Your task to perform on an android device: Open Youtube and go to "Your channel" Image 0: 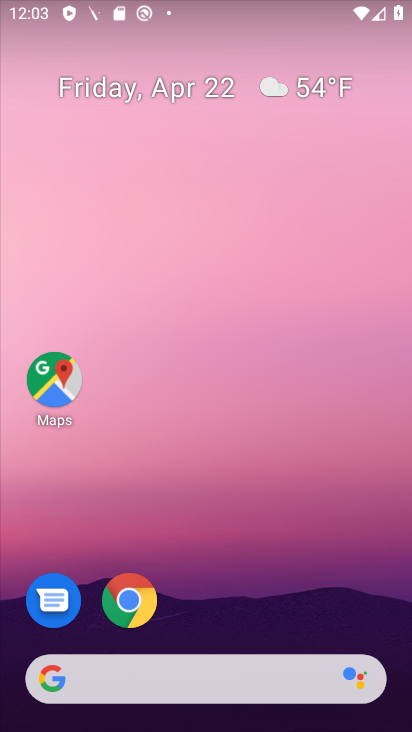
Step 0: drag from (359, 257) to (352, 215)
Your task to perform on an android device: Open Youtube and go to "Your channel" Image 1: 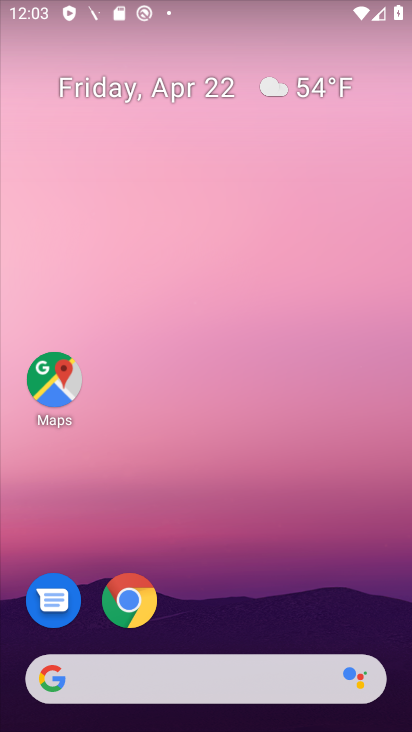
Step 1: drag from (376, 277) to (360, 194)
Your task to perform on an android device: Open Youtube and go to "Your channel" Image 2: 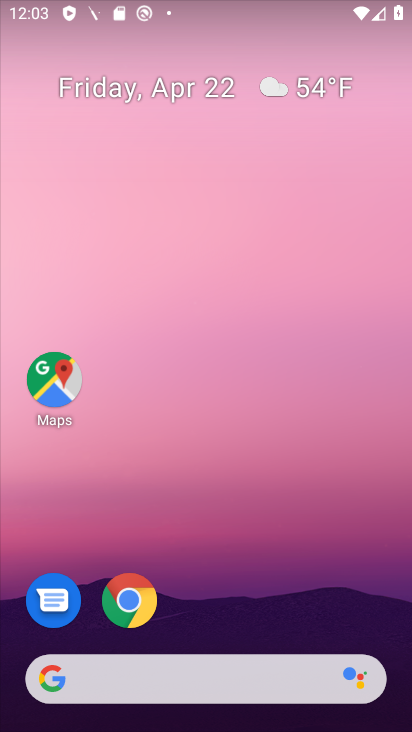
Step 2: drag from (398, 635) to (368, 249)
Your task to perform on an android device: Open Youtube and go to "Your channel" Image 3: 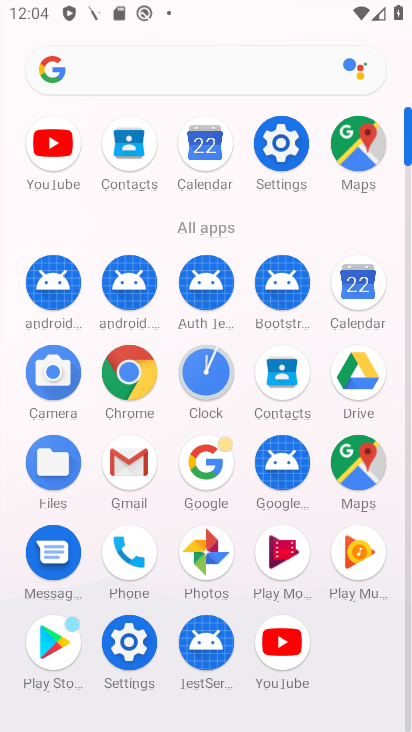
Step 3: click (285, 649)
Your task to perform on an android device: Open Youtube and go to "Your channel" Image 4: 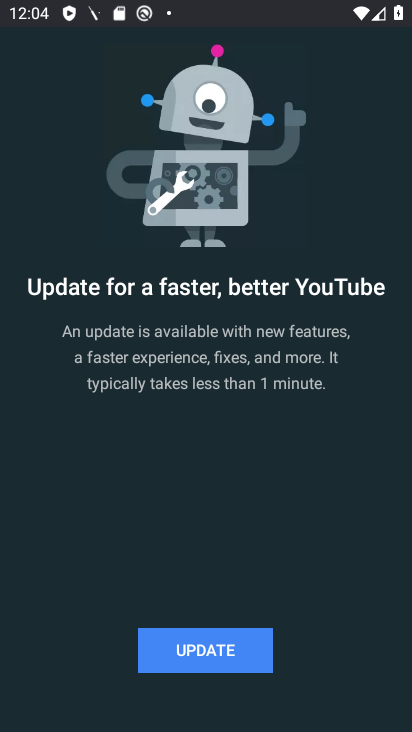
Step 4: click (245, 649)
Your task to perform on an android device: Open Youtube and go to "Your channel" Image 5: 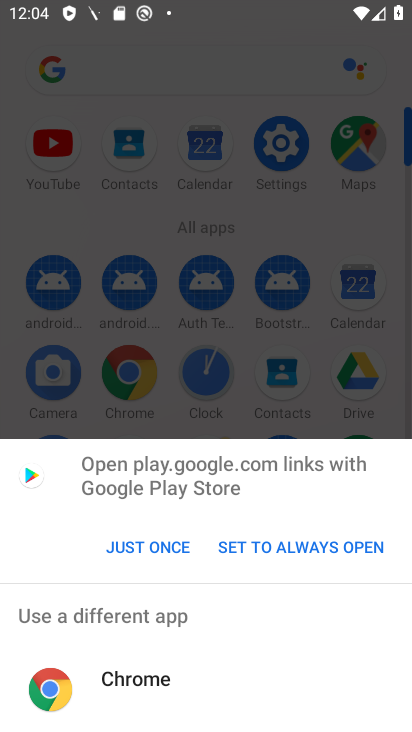
Step 5: click (142, 546)
Your task to perform on an android device: Open Youtube and go to "Your channel" Image 6: 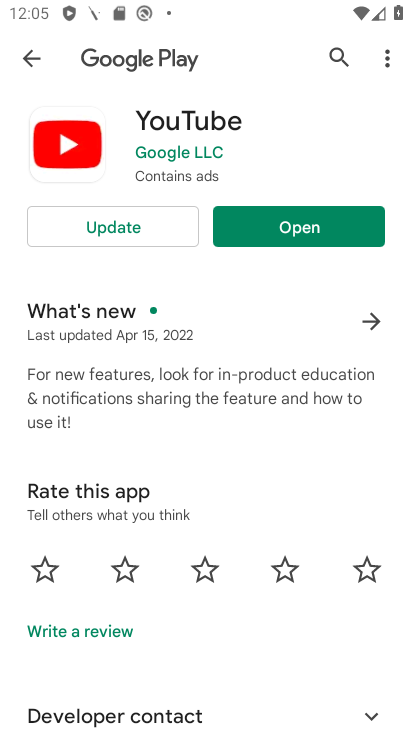
Step 6: click (140, 232)
Your task to perform on an android device: Open Youtube and go to "Your channel" Image 7: 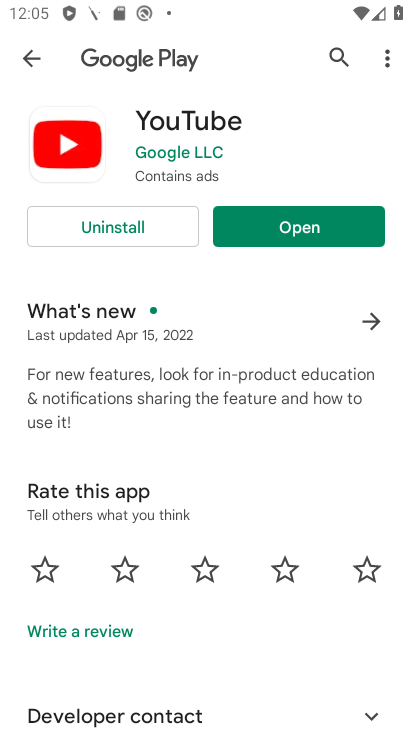
Step 7: click (296, 221)
Your task to perform on an android device: Open Youtube and go to "Your channel" Image 8: 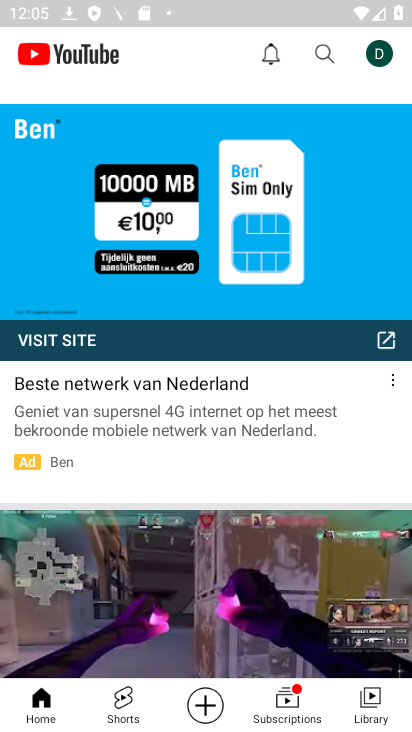
Step 8: click (372, 51)
Your task to perform on an android device: Open Youtube and go to "Your channel" Image 9: 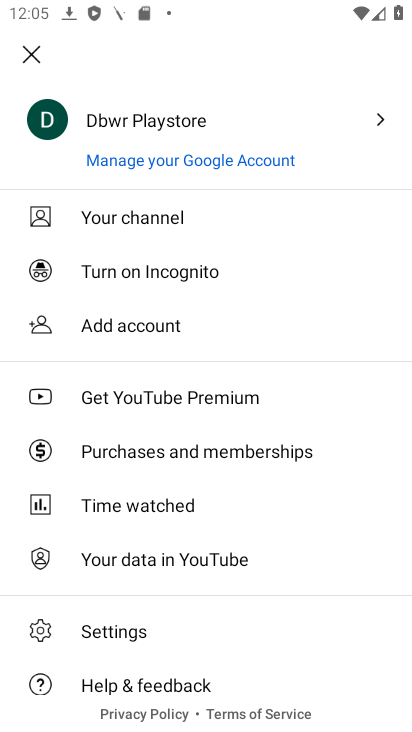
Step 9: click (103, 218)
Your task to perform on an android device: Open Youtube and go to "Your channel" Image 10: 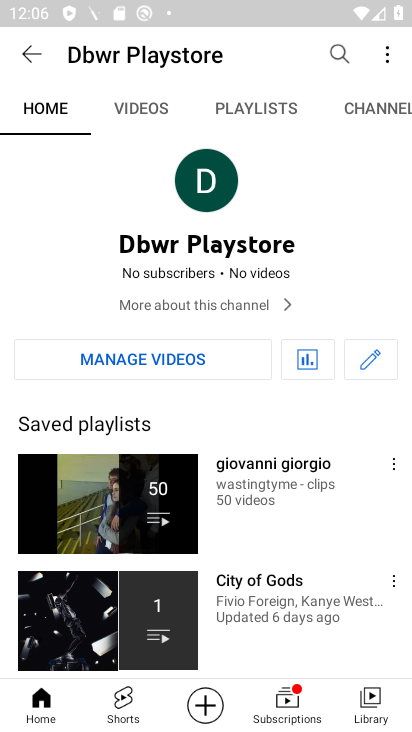
Step 10: task complete